Your task to perform on an android device: empty trash in google photos Image 0: 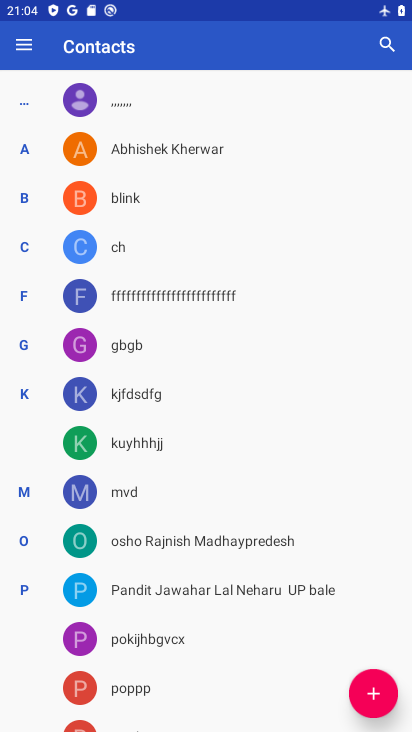
Step 0: press home button
Your task to perform on an android device: empty trash in google photos Image 1: 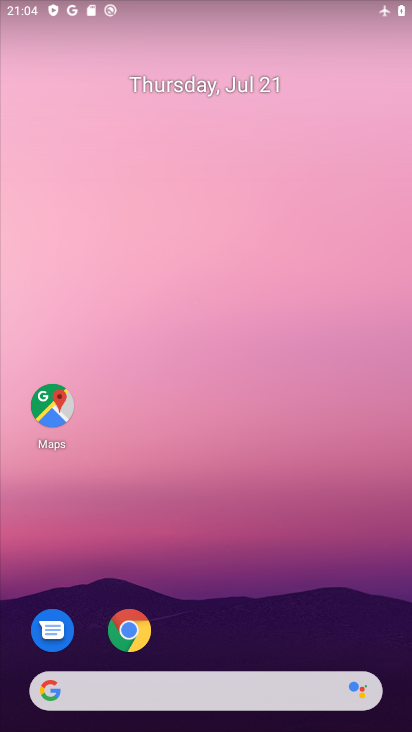
Step 1: drag from (297, 602) to (293, 0)
Your task to perform on an android device: empty trash in google photos Image 2: 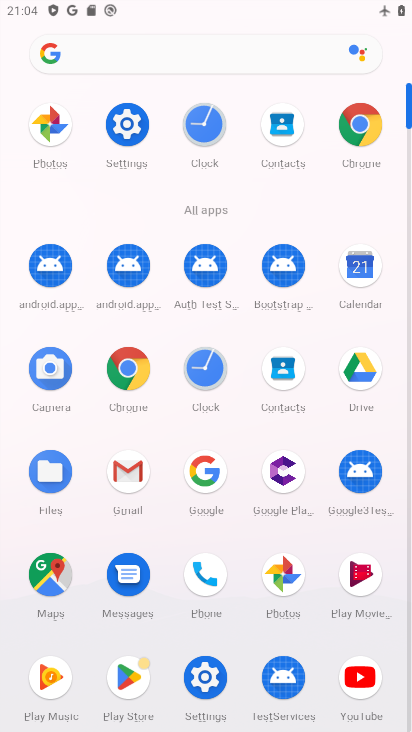
Step 2: click (281, 569)
Your task to perform on an android device: empty trash in google photos Image 3: 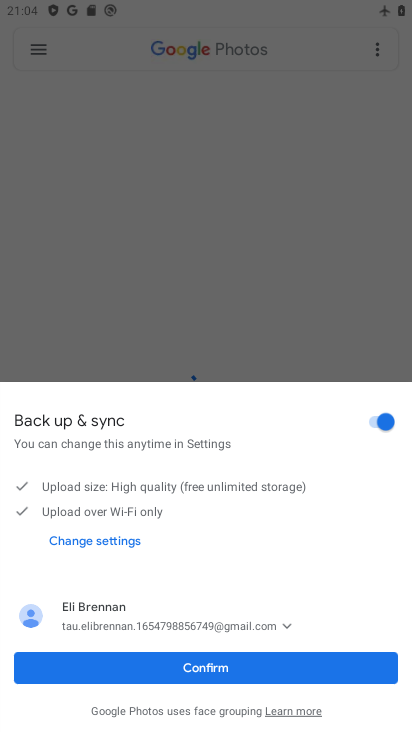
Step 3: click (259, 668)
Your task to perform on an android device: empty trash in google photos Image 4: 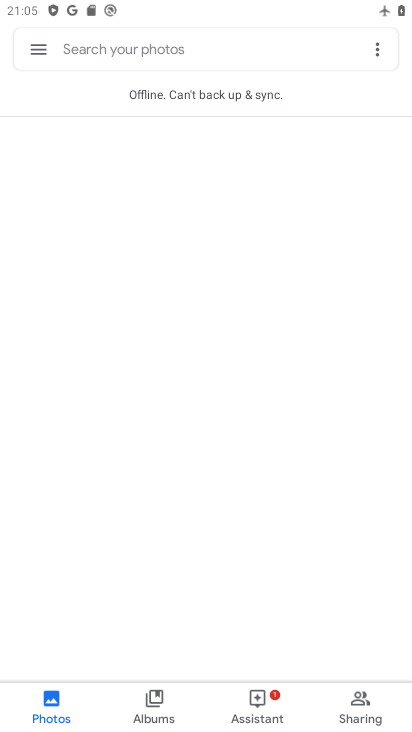
Step 4: click (8, 48)
Your task to perform on an android device: empty trash in google photos Image 5: 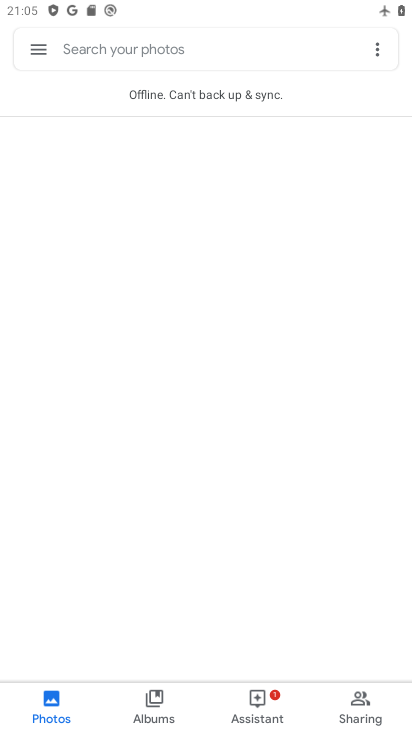
Step 5: click (71, 36)
Your task to perform on an android device: empty trash in google photos Image 6: 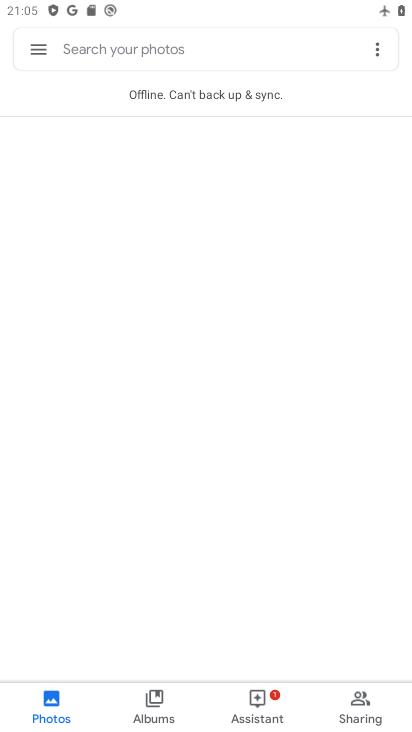
Step 6: click (40, 45)
Your task to perform on an android device: empty trash in google photos Image 7: 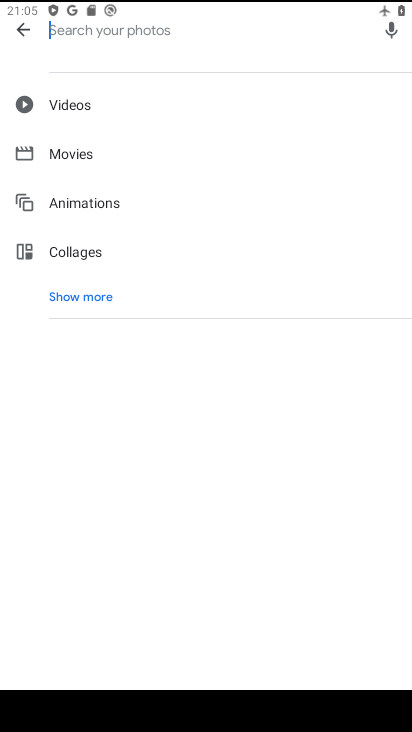
Step 7: click (21, 22)
Your task to perform on an android device: empty trash in google photos Image 8: 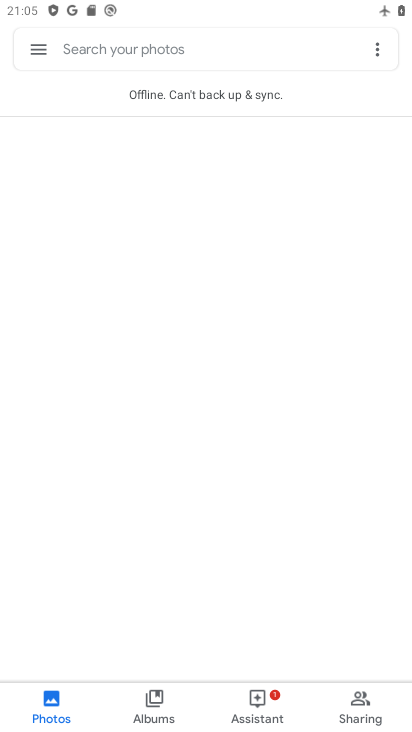
Step 8: click (23, 46)
Your task to perform on an android device: empty trash in google photos Image 9: 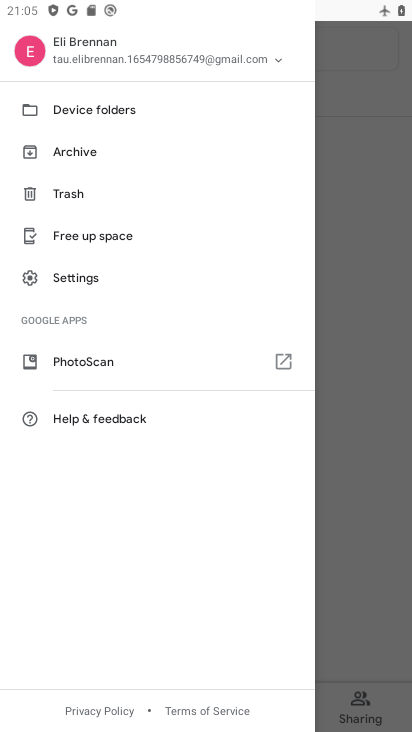
Step 9: click (79, 196)
Your task to perform on an android device: empty trash in google photos Image 10: 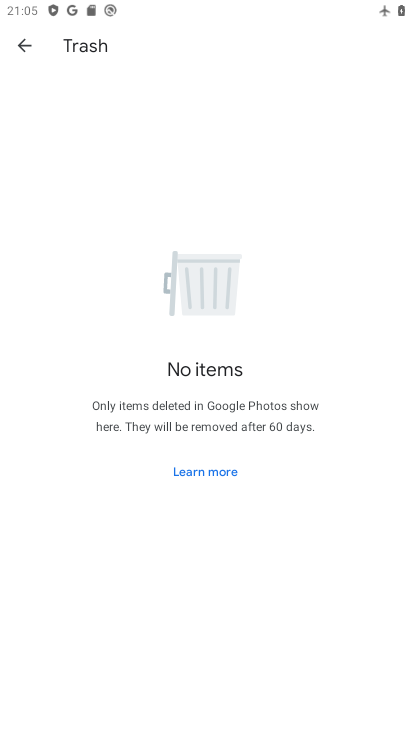
Step 10: task complete